Your task to perform on an android device: Do I have any events tomorrow? Image 0: 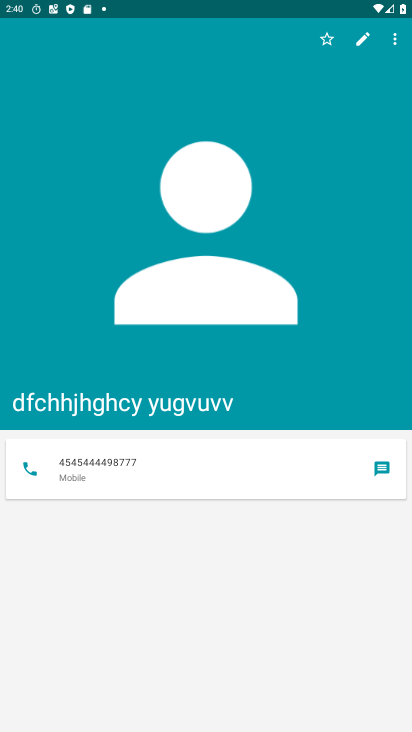
Step 0: press home button
Your task to perform on an android device: Do I have any events tomorrow? Image 1: 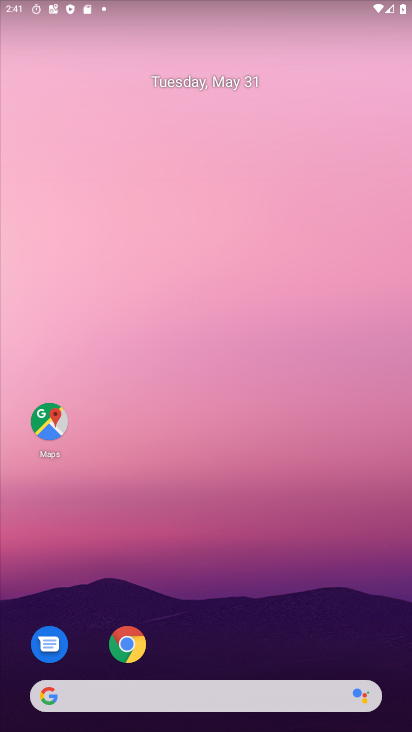
Step 1: drag from (391, 715) to (368, 100)
Your task to perform on an android device: Do I have any events tomorrow? Image 2: 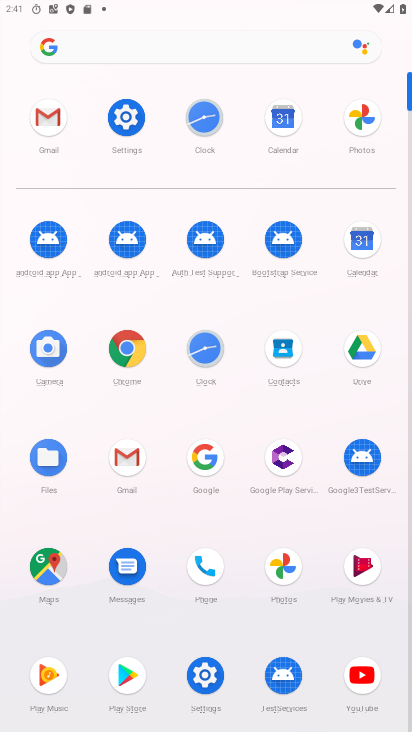
Step 2: click (361, 242)
Your task to perform on an android device: Do I have any events tomorrow? Image 3: 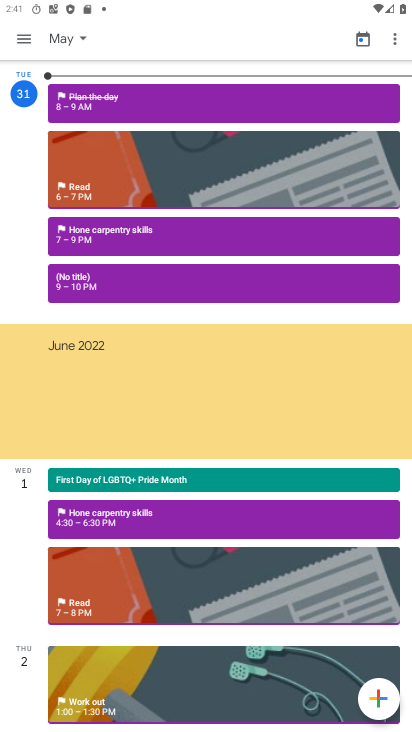
Step 3: click (25, 39)
Your task to perform on an android device: Do I have any events tomorrow? Image 4: 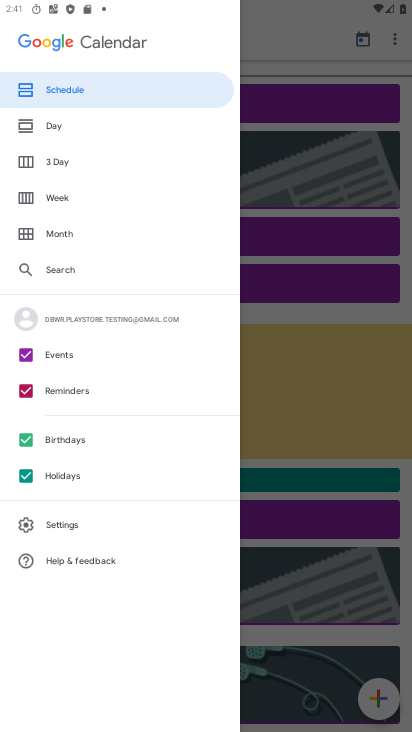
Step 4: click (46, 125)
Your task to perform on an android device: Do I have any events tomorrow? Image 5: 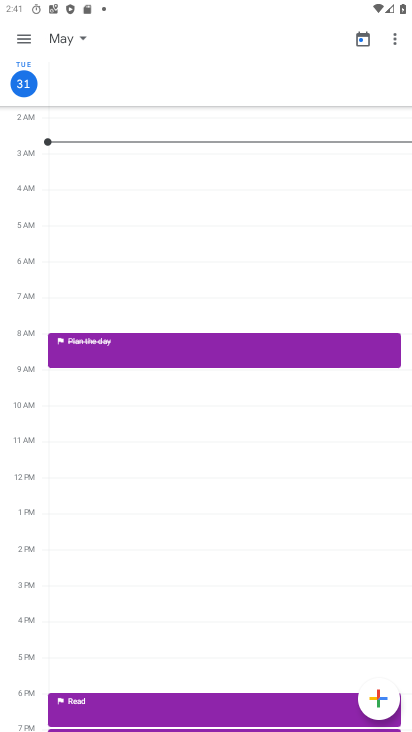
Step 5: click (79, 33)
Your task to perform on an android device: Do I have any events tomorrow? Image 6: 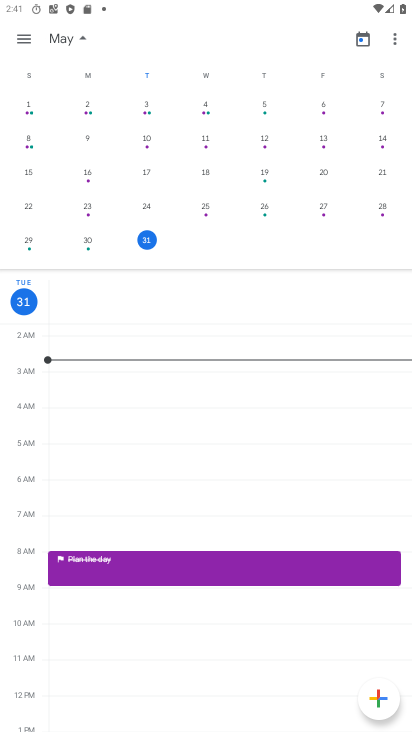
Step 6: drag from (403, 205) to (113, 194)
Your task to perform on an android device: Do I have any events tomorrow? Image 7: 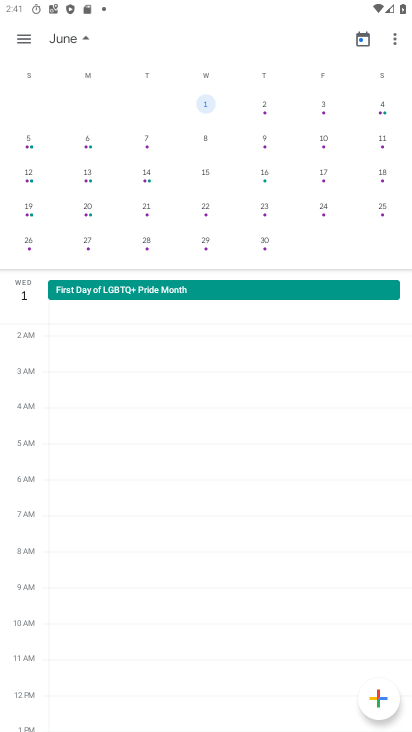
Step 7: click (196, 104)
Your task to perform on an android device: Do I have any events tomorrow? Image 8: 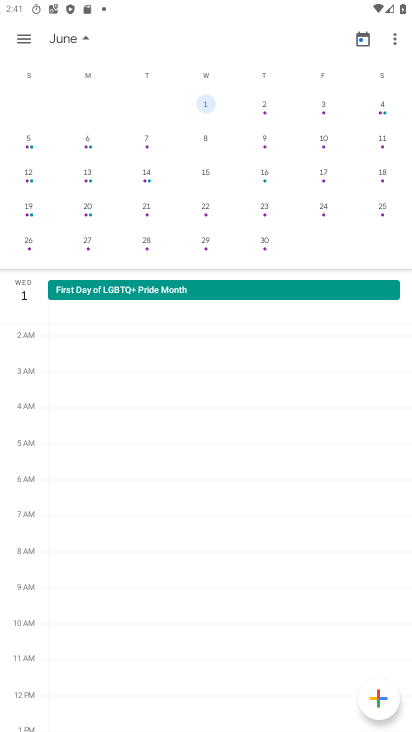
Step 8: click (203, 101)
Your task to perform on an android device: Do I have any events tomorrow? Image 9: 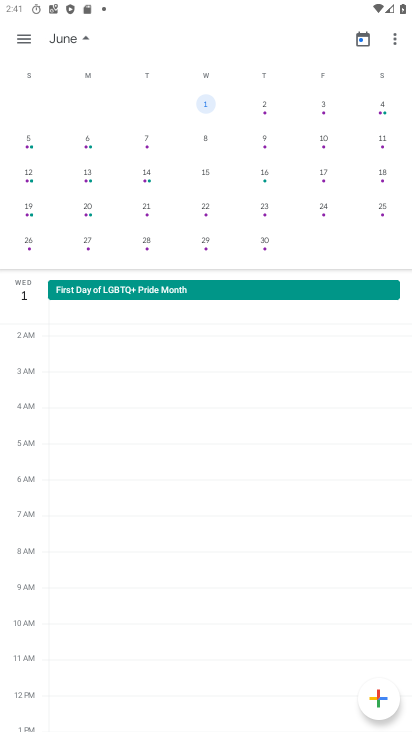
Step 9: click (27, 38)
Your task to perform on an android device: Do I have any events tomorrow? Image 10: 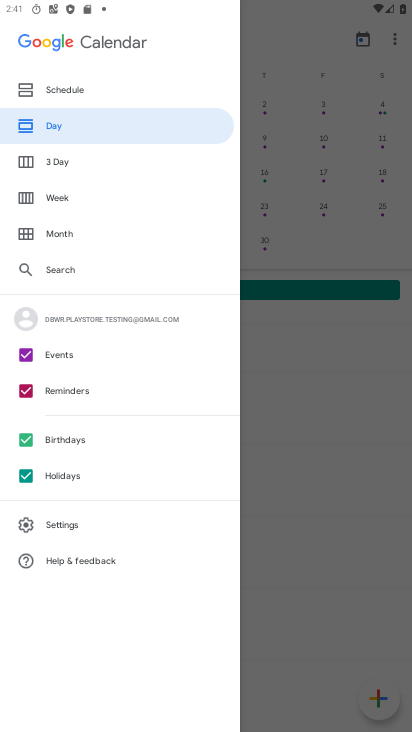
Step 10: click (69, 86)
Your task to perform on an android device: Do I have any events tomorrow? Image 11: 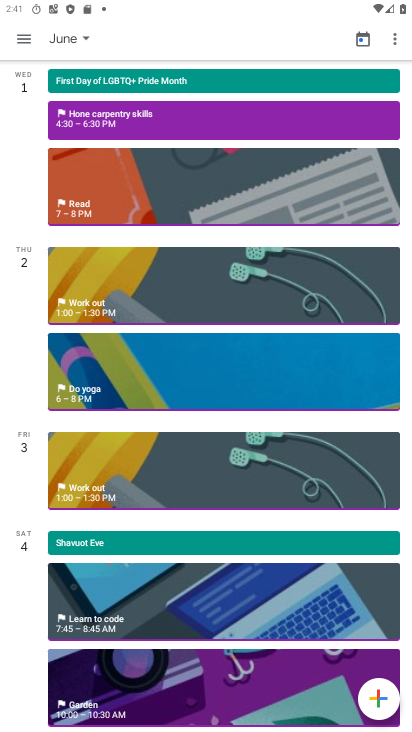
Step 11: task complete